Your task to perform on an android device: Open the stopwatch Image 0: 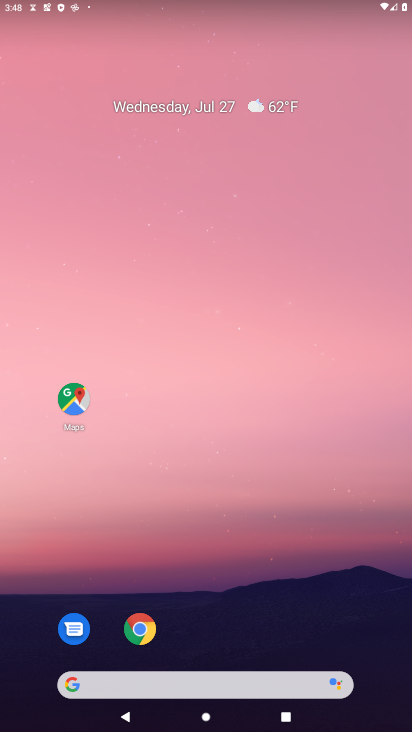
Step 0: drag from (186, 686) to (293, 62)
Your task to perform on an android device: Open the stopwatch Image 1: 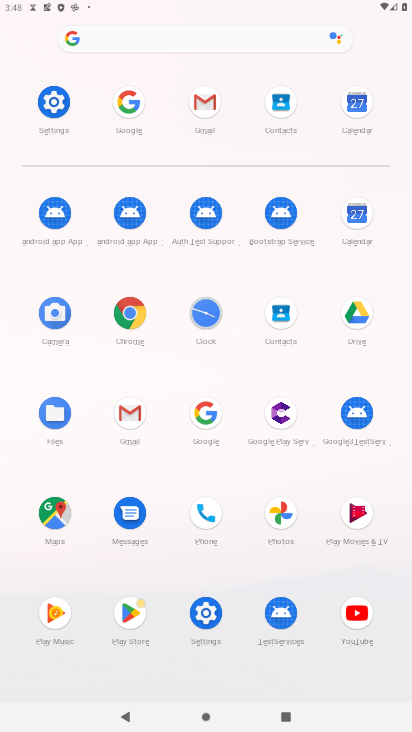
Step 1: click (208, 314)
Your task to perform on an android device: Open the stopwatch Image 2: 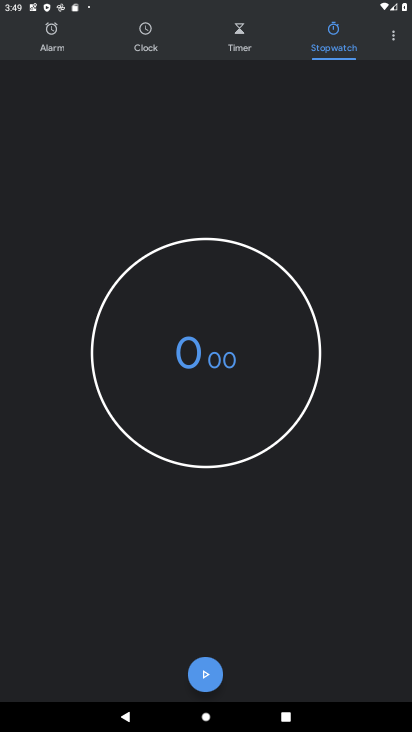
Step 2: task complete